Your task to perform on an android device: Open Android settings Image 0: 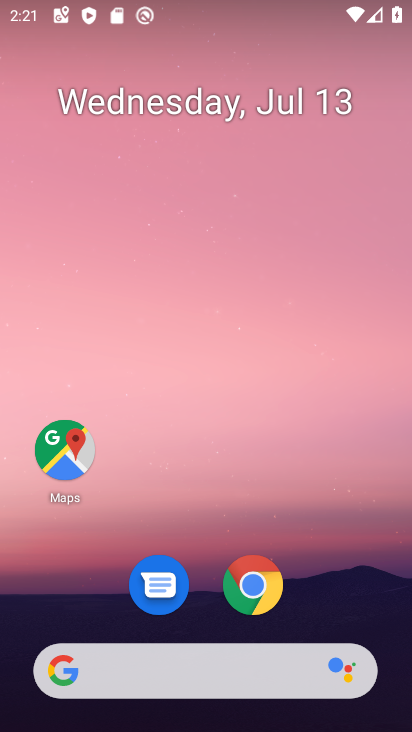
Step 0: press home button
Your task to perform on an android device: Open Android settings Image 1: 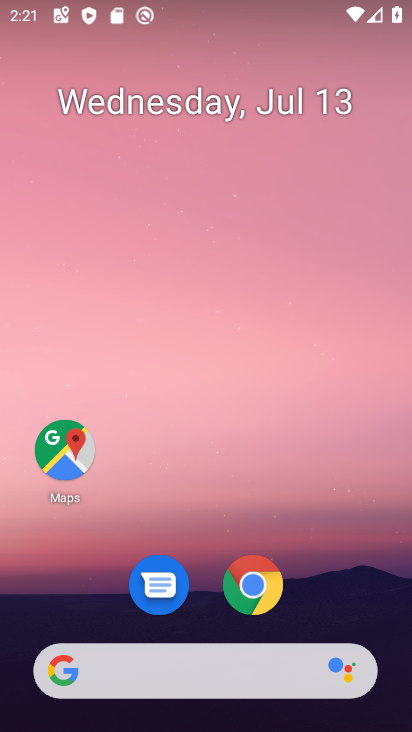
Step 1: drag from (195, 683) to (335, 66)
Your task to perform on an android device: Open Android settings Image 2: 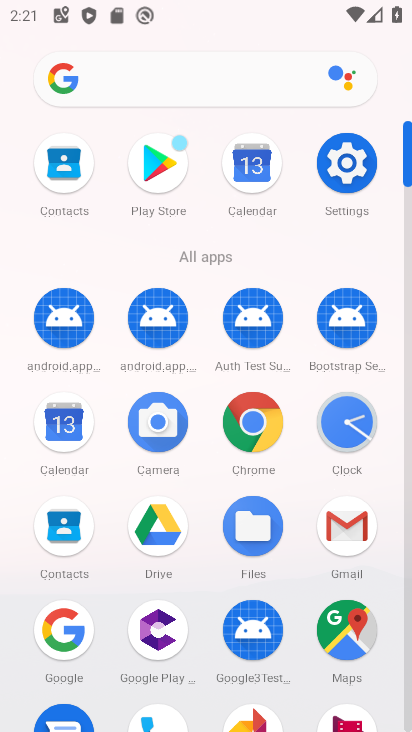
Step 2: click (350, 168)
Your task to perform on an android device: Open Android settings Image 3: 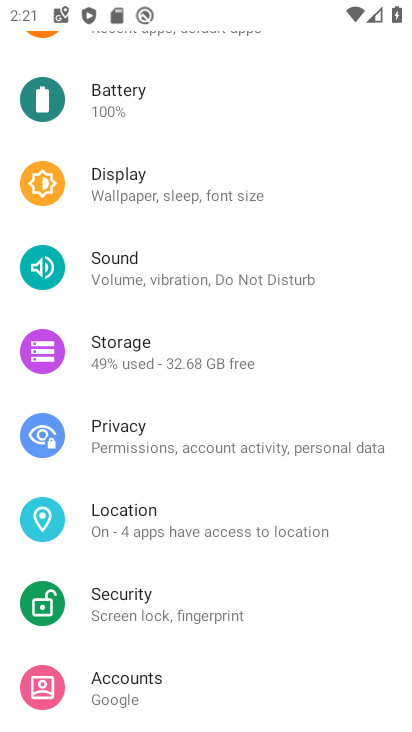
Step 3: task complete